Your task to perform on an android device: Go to eBay Image 0: 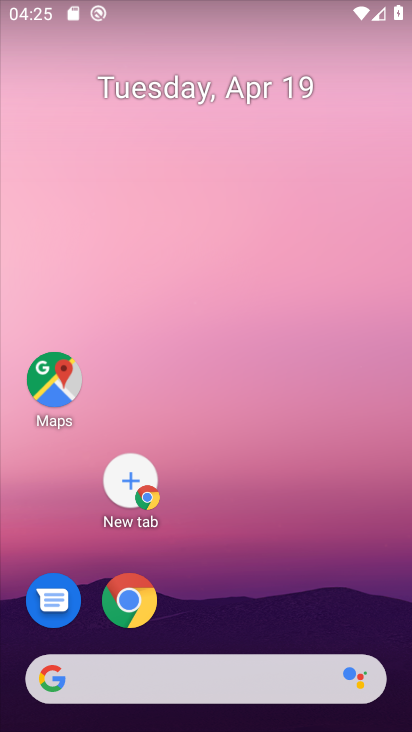
Step 0: click (133, 590)
Your task to perform on an android device: Go to eBay Image 1: 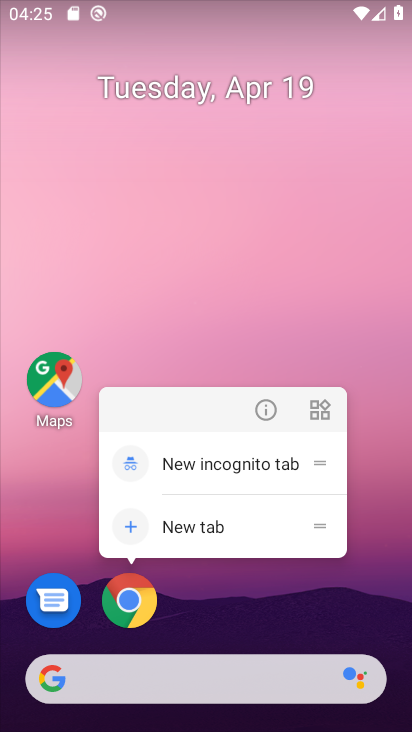
Step 1: click (163, 531)
Your task to perform on an android device: Go to eBay Image 2: 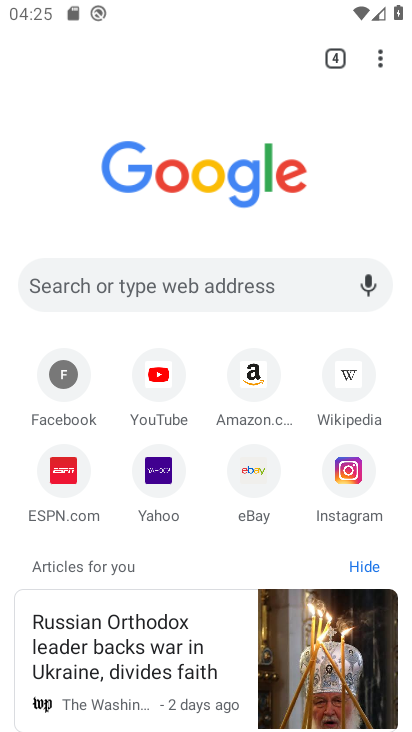
Step 2: click (262, 489)
Your task to perform on an android device: Go to eBay Image 3: 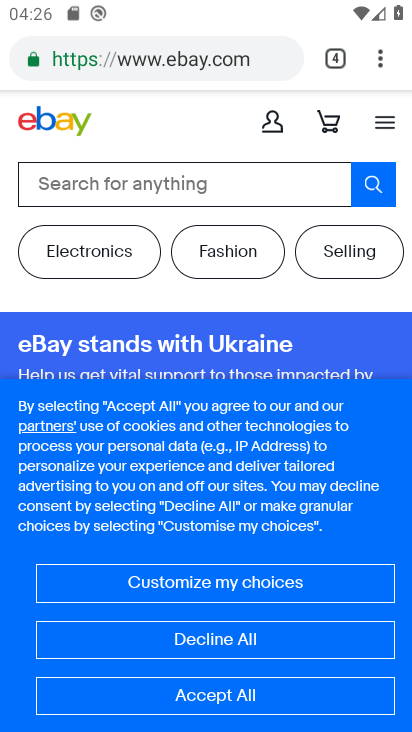
Step 3: task complete